Your task to perform on an android device: Open maps Image 0: 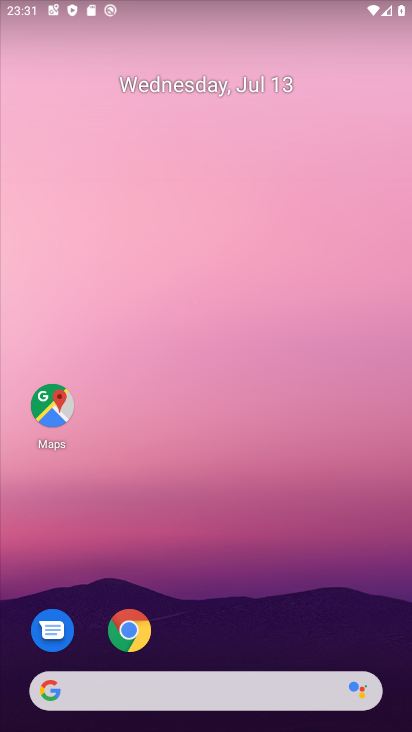
Step 0: drag from (303, 637) to (337, 166)
Your task to perform on an android device: Open maps Image 1: 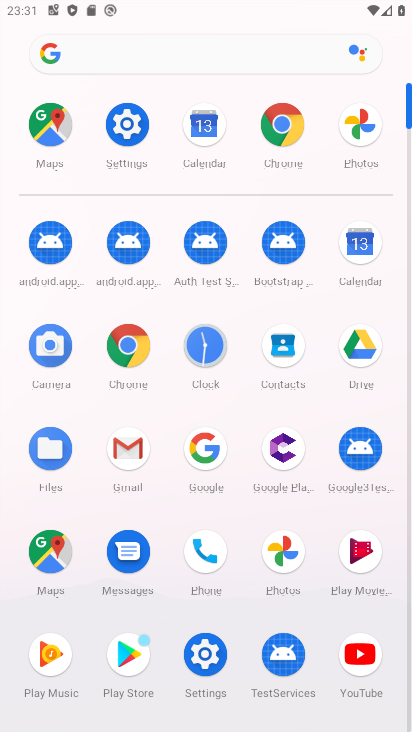
Step 1: click (45, 549)
Your task to perform on an android device: Open maps Image 2: 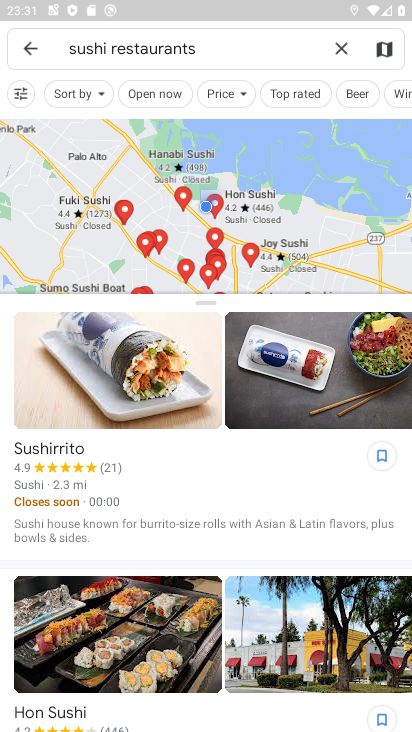
Step 2: task complete